Your task to perform on an android device: What does the iPhone 8 look like on eBay? Image 0: 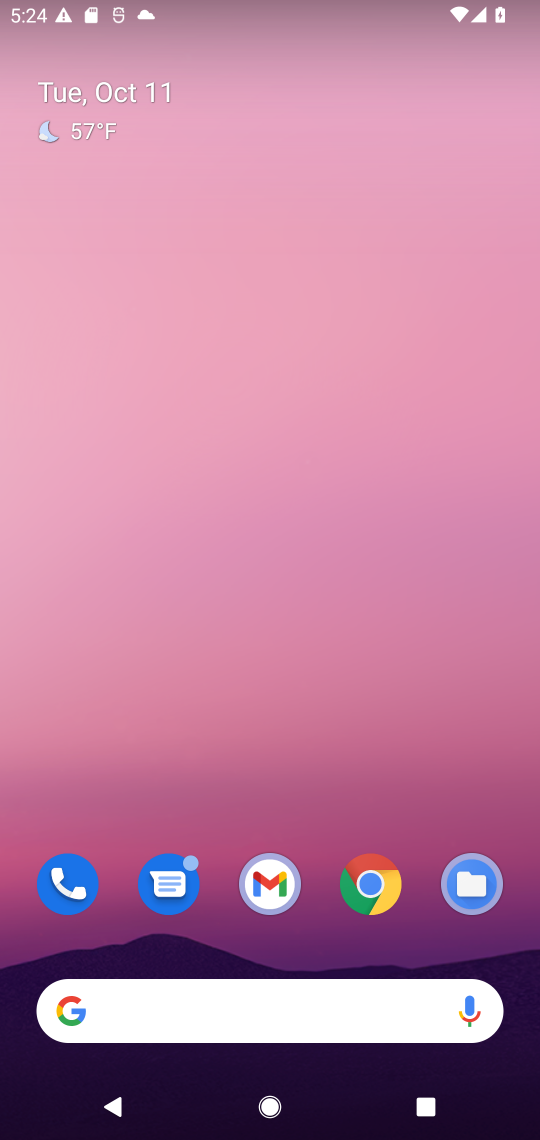
Step 0: click (375, 886)
Your task to perform on an android device: What does the iPhone 8 look like on eBay? Image 1: 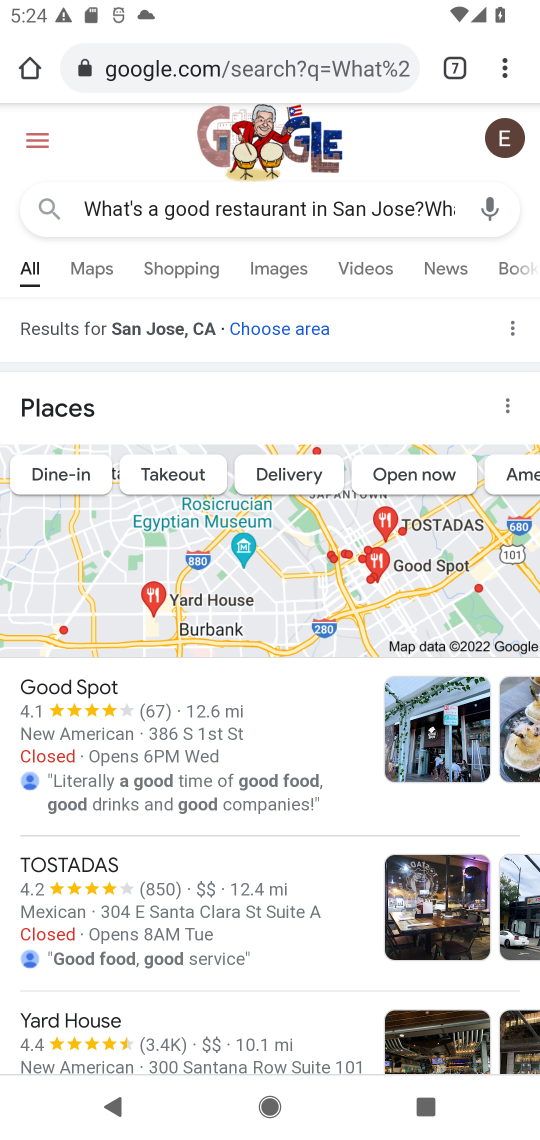
Step 1: click (346, 211)
Your task to perform on an android device: What does the iPhone 8 look like on eBay? Image 2: 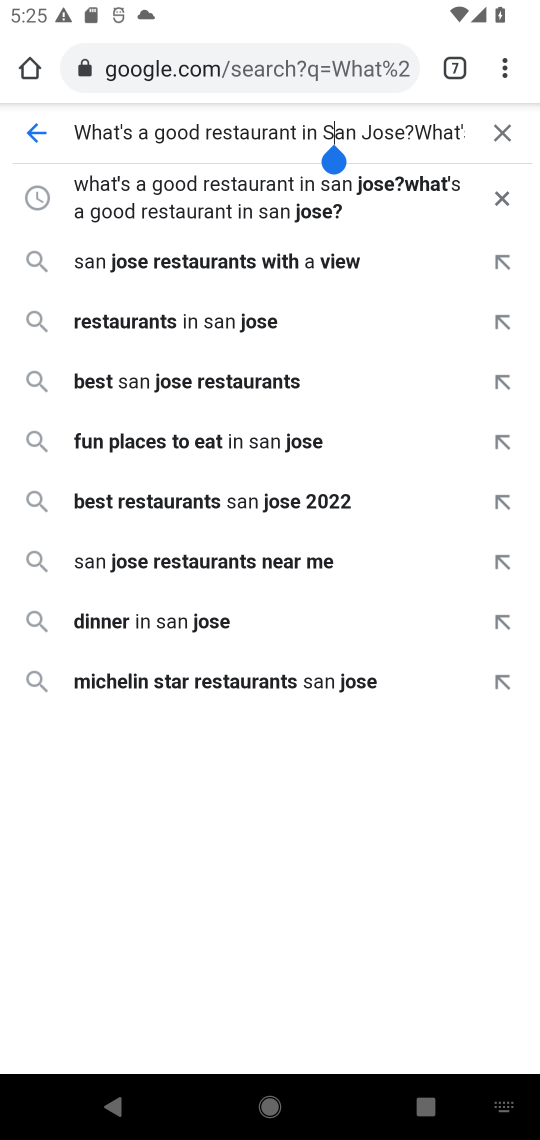
Step 2: click (497, 135)
Your task to perform on an android device: What does the iPhone 8 look like on eBay? Image 3: 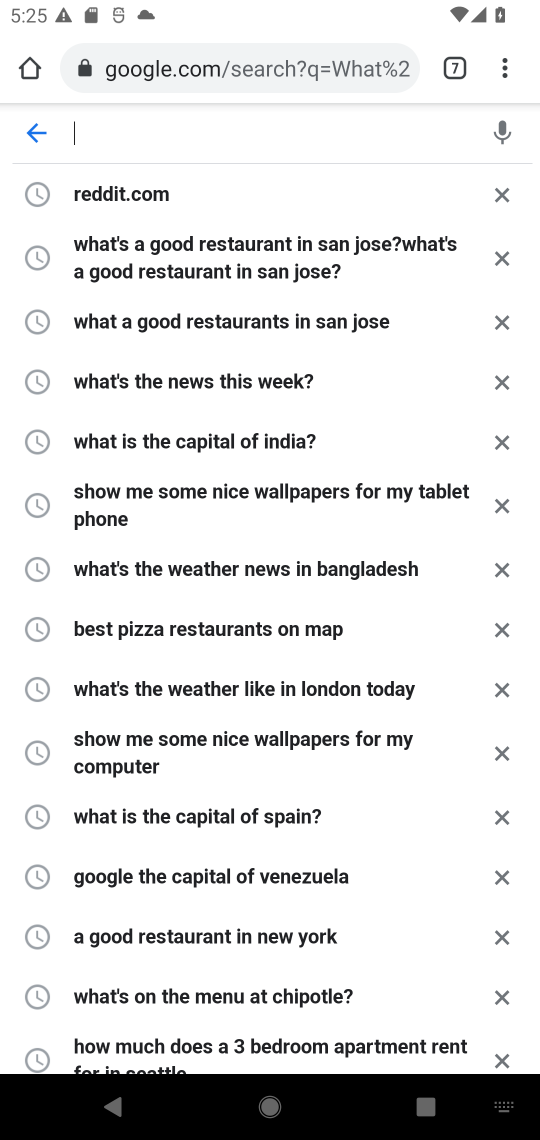
Step 3: type "iPhone 8 look like on eBay?"
Your task to perform on an android device: What does the iPhone 8 look like on eBay? Image 4: 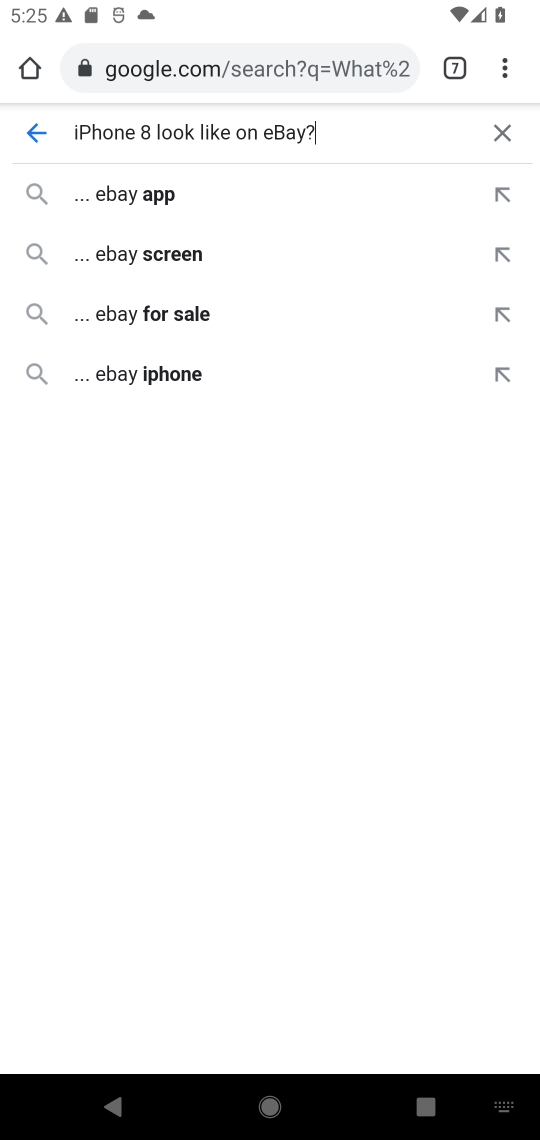
Step 4: click (149, 199)
Your task to perform on an android device: What does the iPhone 8 look like on eBay? Image 5: 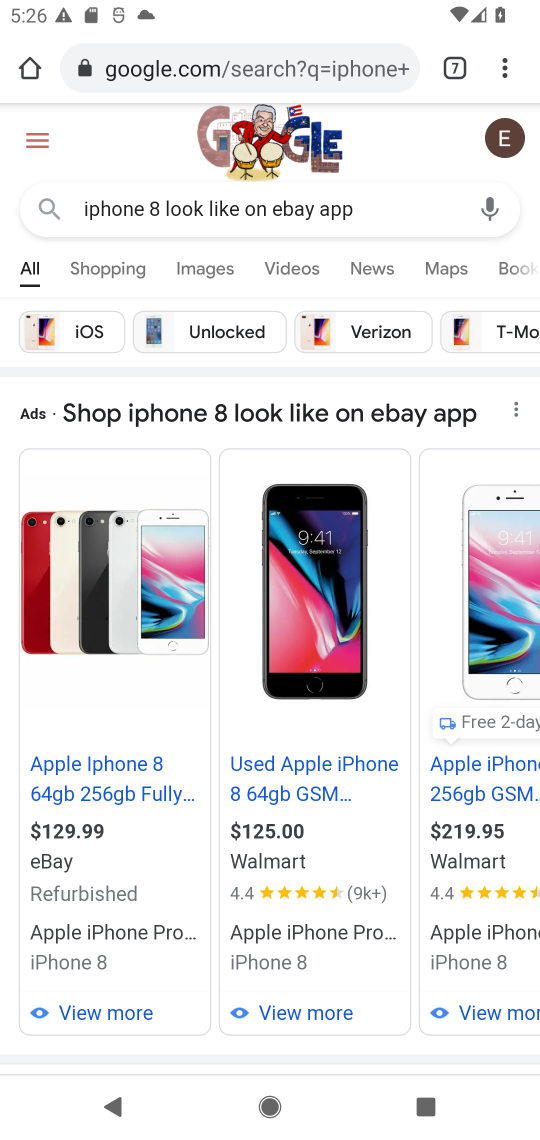
Step 5: task complete